Your task to perform on an android device: toggle notification dots Image 0: 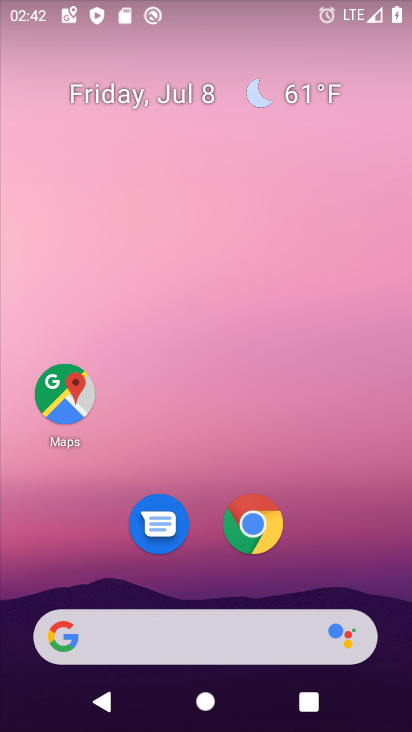
Step 0: drag from (336, 530) to (309, 10)
Your task to perform on an android device: toggle notification dots Image 1: 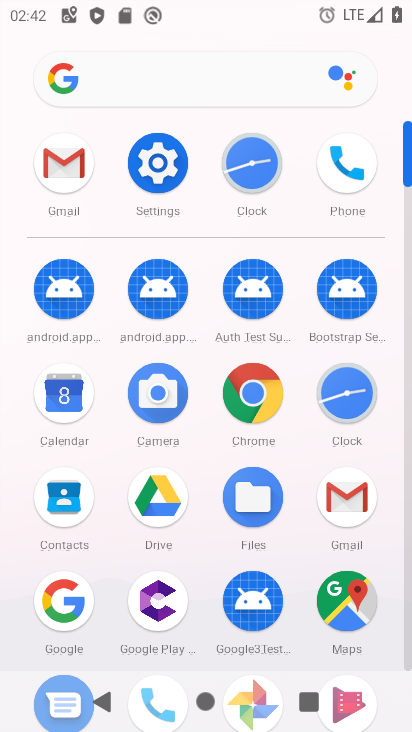
Step 1: click (141, 148)
Your task to perform on an android device: toggle notification dots Image 2: 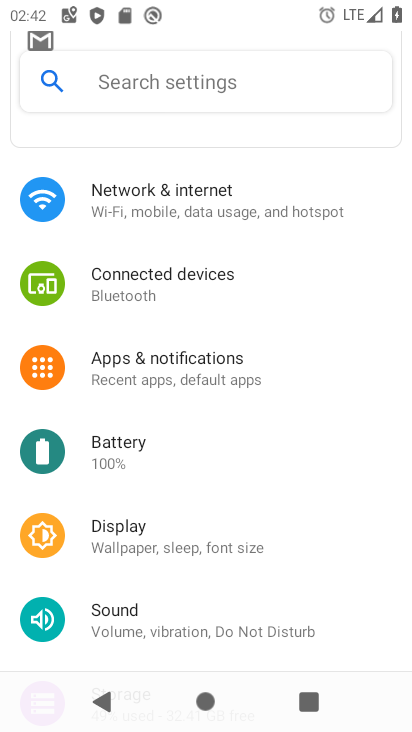
Step 2: click (214, 373)
Your task to perform on an android device: toggle notification dots Image 3: 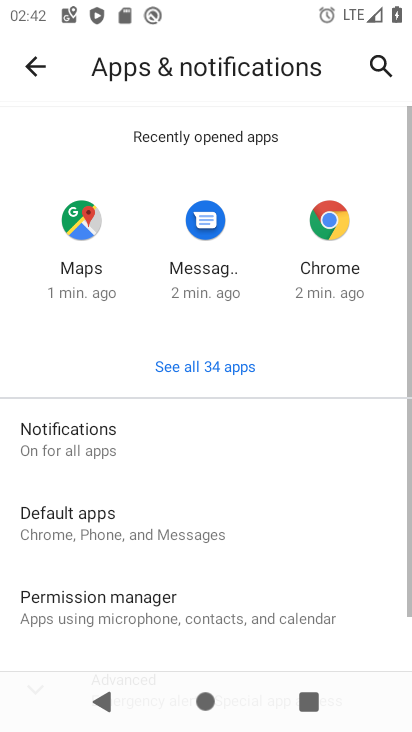
Step 3: drag from (287, 540) to (304, 261)
Your task to perform on an android device: toggle notification dots Image 4: 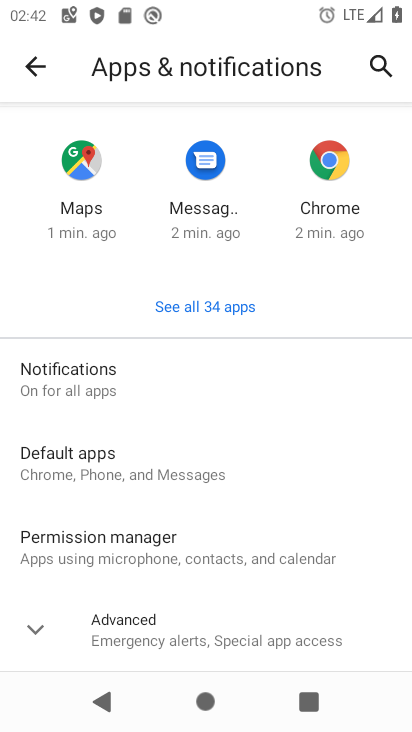
Step 4: click (119, 380)
Your task to perform on an android device: toggle notification dots Image 5: 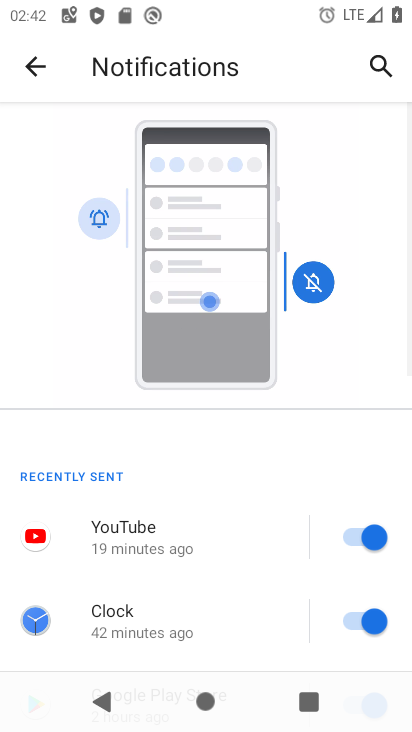
Step 5: drag from (251, 575) to (241, 8)
Your task to perform on an android device: toggle notification dots Image 6: 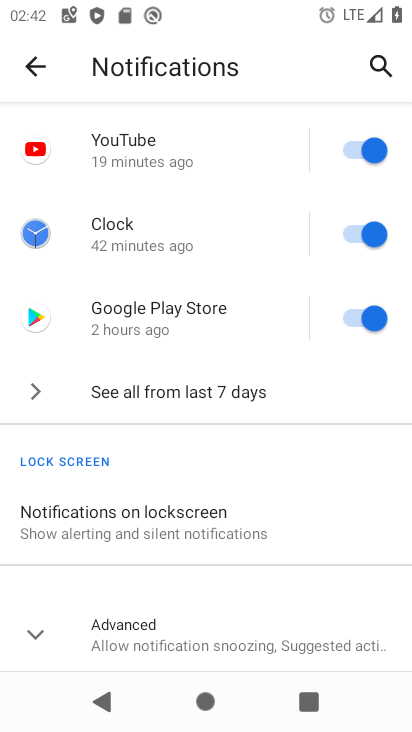
Step 6: click (38, 631)
Your task to perform on an android device: toggle notification dots Image 7: 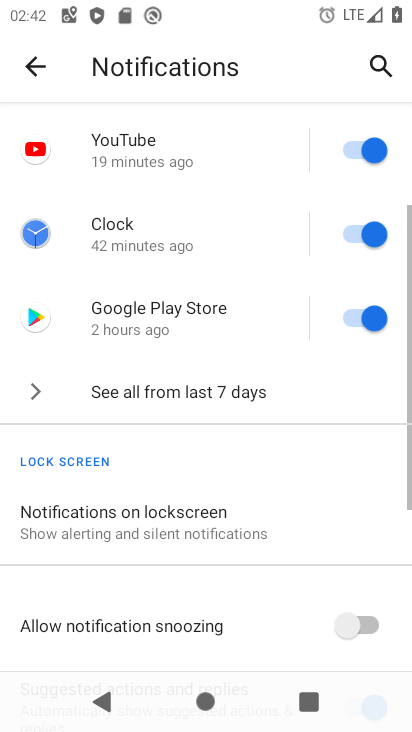
Step 7: drag from (238, 597) to (242, 46)
Your task to perform on an android device: toggle notification dots Image 8: 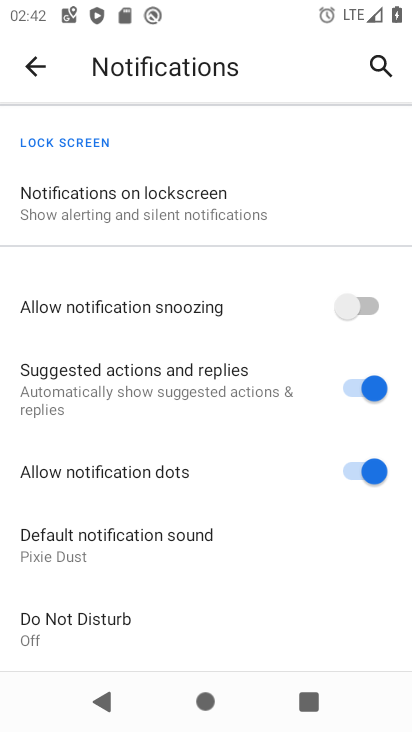
Step 8: click (355, 462)
Your task to perform on an android device: toggle notification dots Image 9: 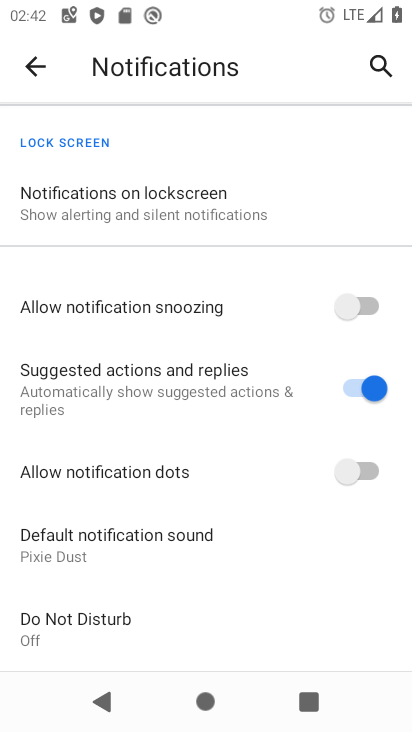
Step 9: task complete